Your task to perform on an android device: turn off picture-in-picture Image 0: 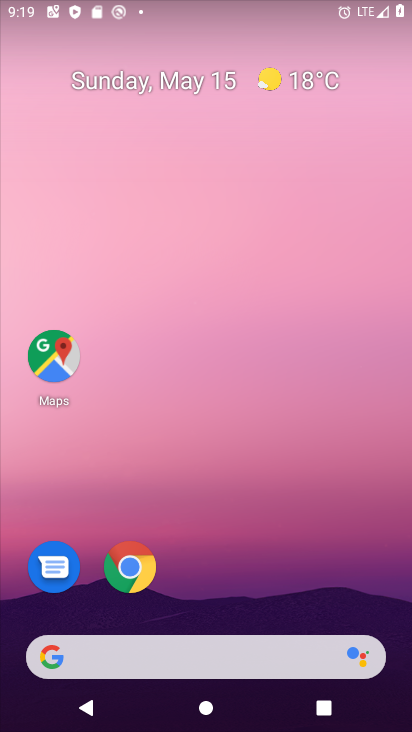
Step 0: click (133, 556)
Your task to perform on an android device: turn off picture-in-picture Image 1: 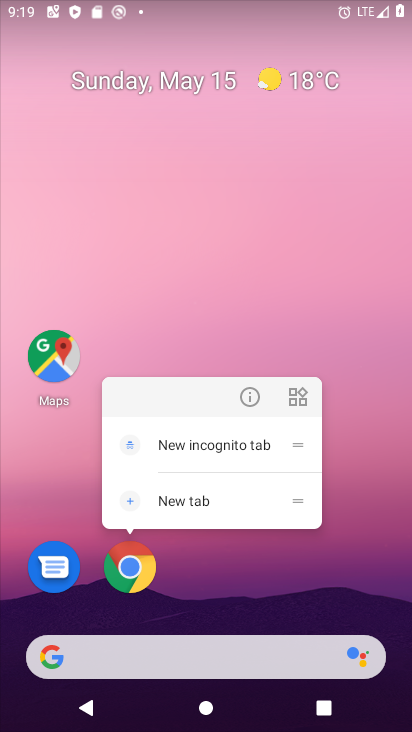
Step 1: click (250, 404)
Your task to perform on an android device: turn off picture-in-picture Image 2: 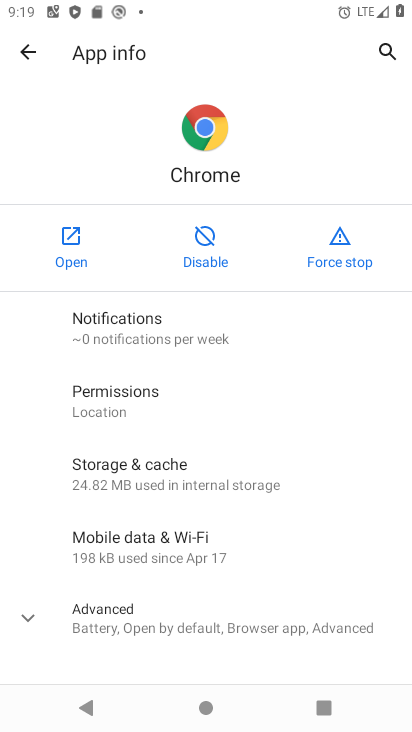
Step 2: drag from (316, 589) to (238, 76)
Your task to perform on an android device: turn off picture-in-picture Image 3: 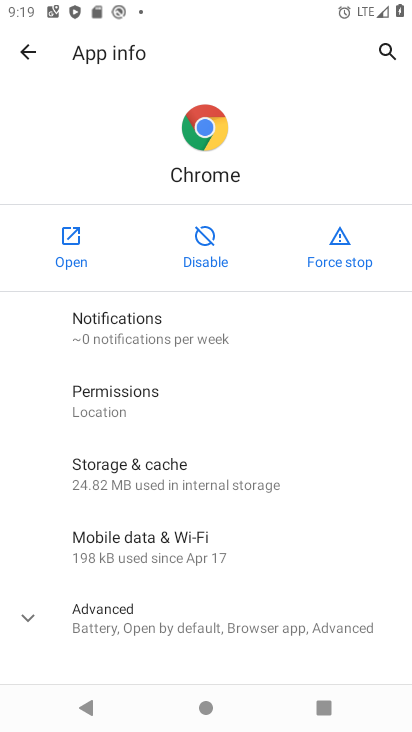
Step 3: click (274, 605)
Your task to perform on an android device: turn off picture-in-picture Image 4: 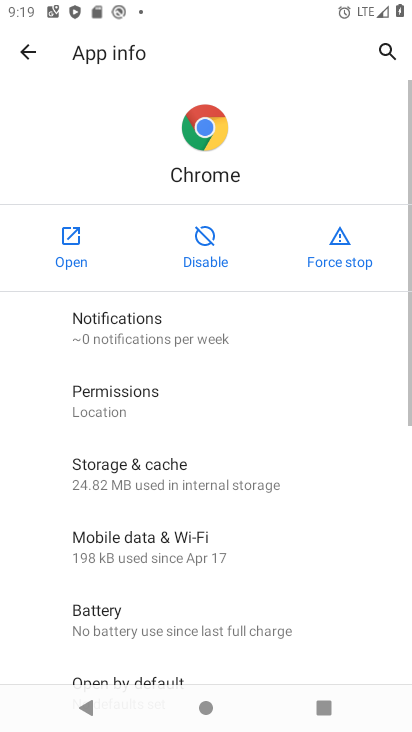
Step 4: drag from (272, 603) to (318, 89)
Your task to perform on an android device: turn off picture-in-picture Image 5: 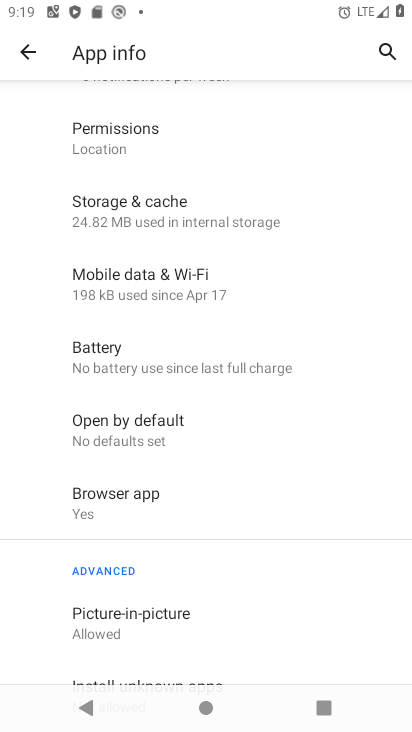
Step 5: drag from (231, 662) to (285, 304)
Your task to perform on an android device: turn off picture-in-picture Image 6: 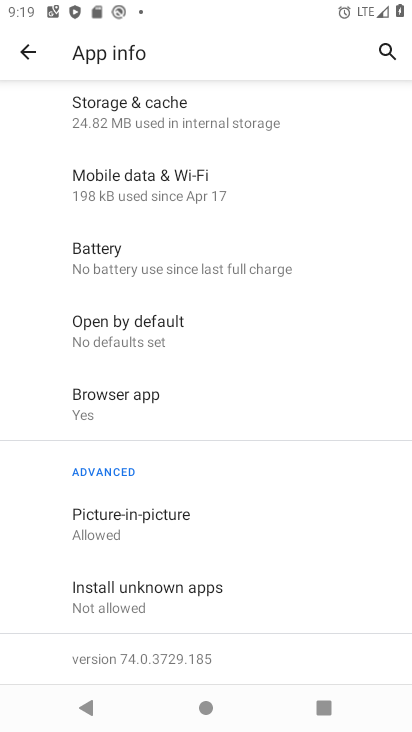
Step 6: click (194, 521)
Your task to perform on an android device: turn off picture-in-picture Image 7: 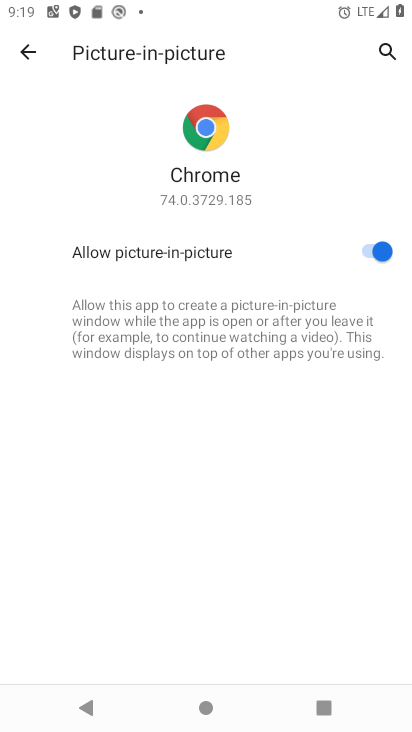
Step 7: click (374, 251)
Your task to perform on an android device: turn off picture-in-picture Image 8: 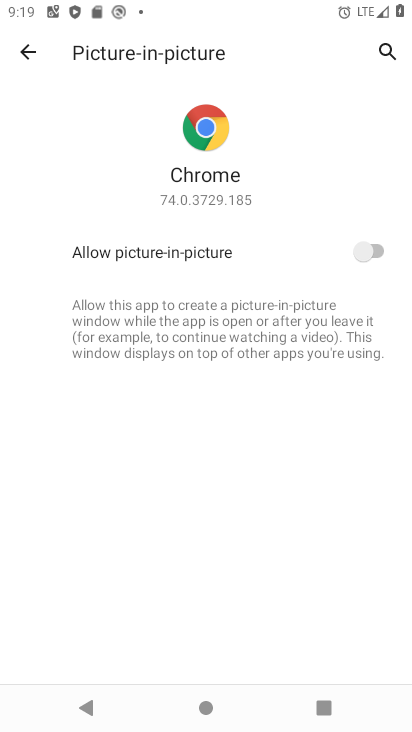
Step 8: task complete